Your task to perform on an android device: View the shopping cart on newegg.com. Search for macbook on newegg.com, select the first entry, and add it to the cart. Image 0: 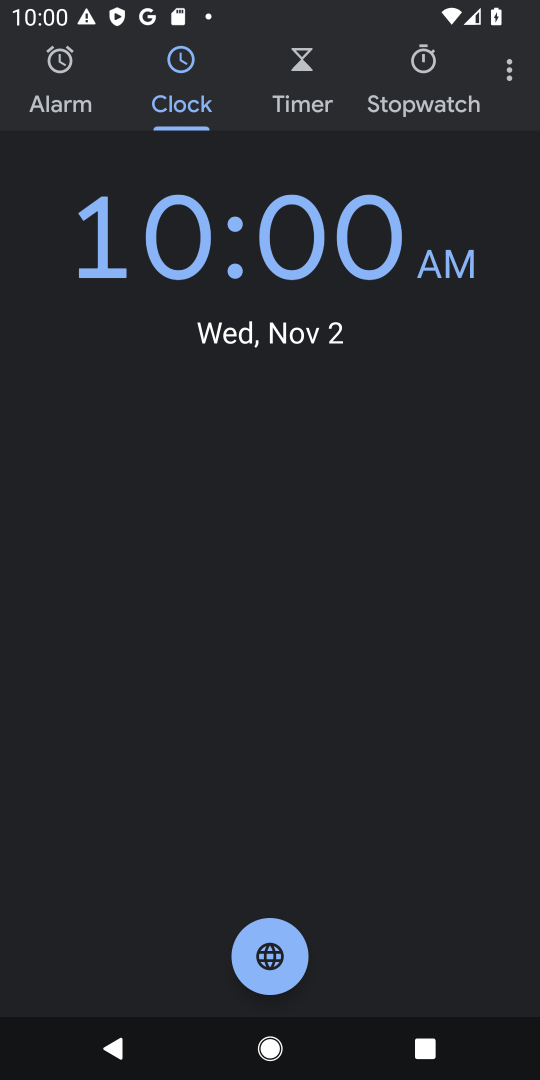
Step 0: press home button
Your task to perform on an android device: View the shopping cart on newegg.com. Search for macbook on newegg.com, select the first entry, and add it to the cart. Image 1: 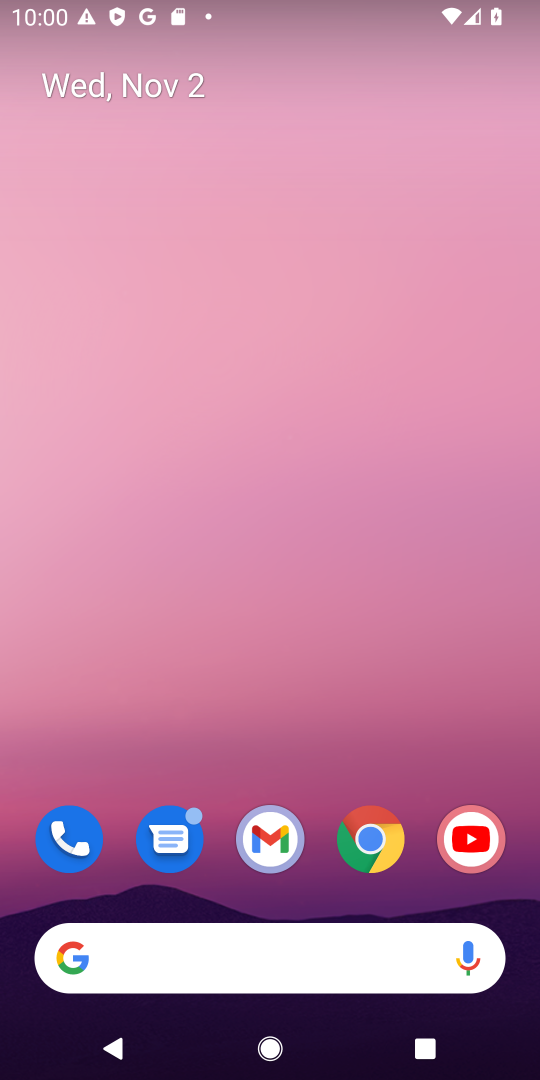
Step 1: drag from (296, 904) to (299, 326)
Your task to perform on an android device: View the shopping cart on newegg.com. Search for macbook on newegg.com, select the first entry, and add it to the cart. Image 2: 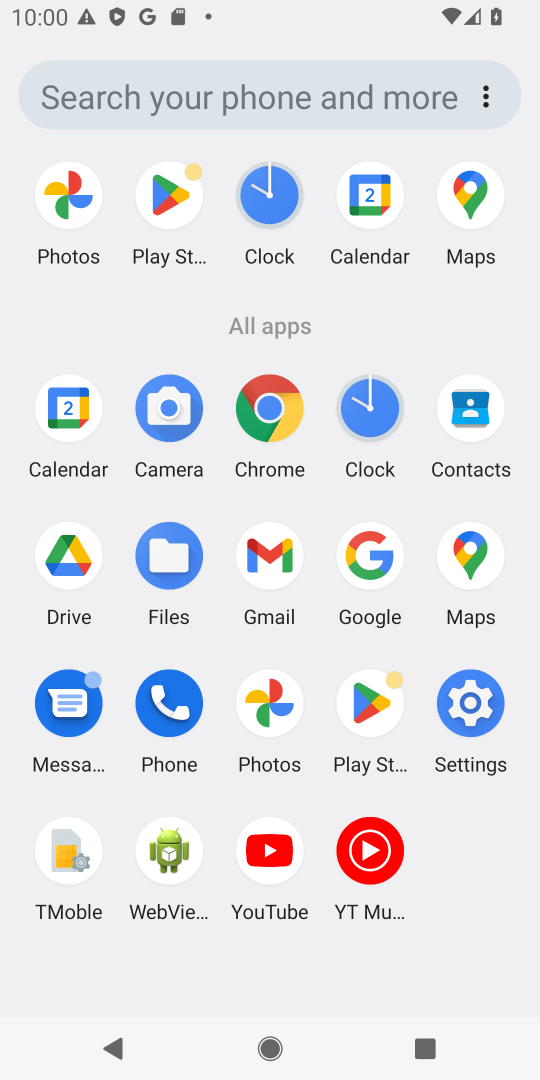
Step 2: click (363, 565)
Your task to perform on an android device: View the shopping cart on newegg.com. Search for macbook on newegg.com, select the first entry, and add it to the cart. Image 3: 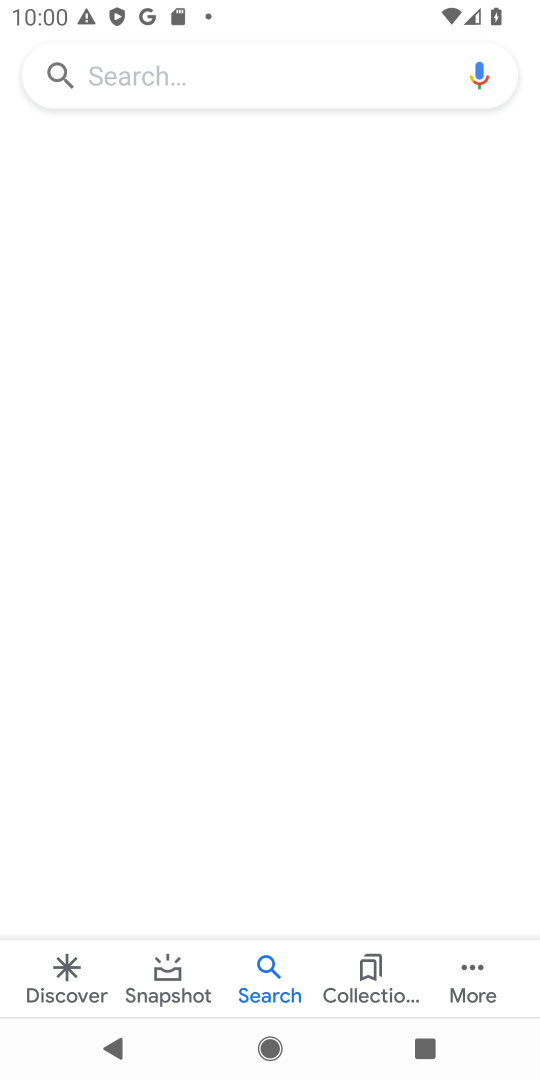
Step 3: click (260, 75)
Your task to perform on an android device: View the shopping cart on newegg.com. Search for macbook on newegg.com, select the first entry, and add it to the cart. Image 4: 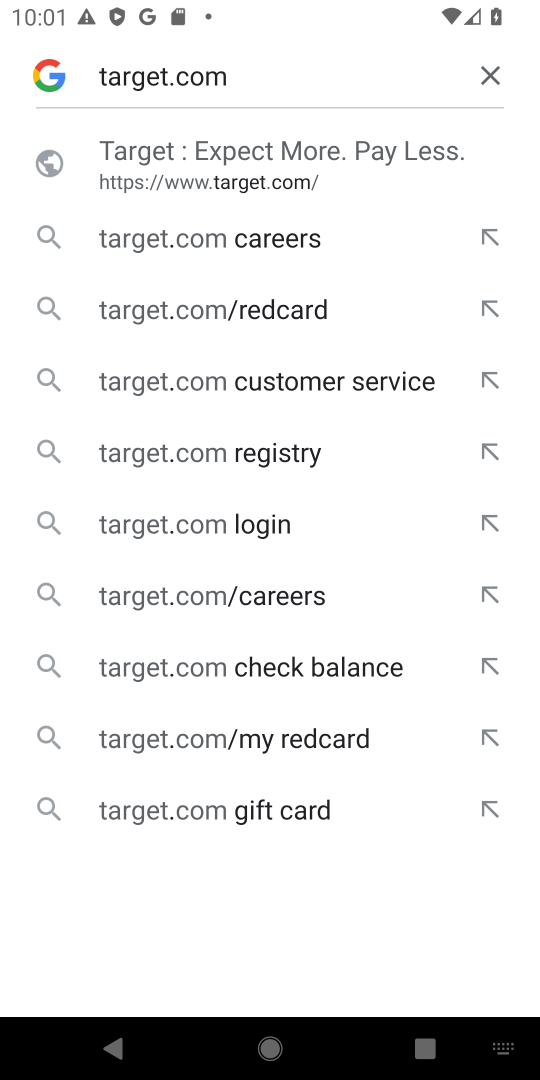
Step 4: click (275, 169)
Your task to perform on an android device: View the shopping cart on newegg.com. Search for macbook on newegg.com, select the first entry, and add it to the cart. Image 5: 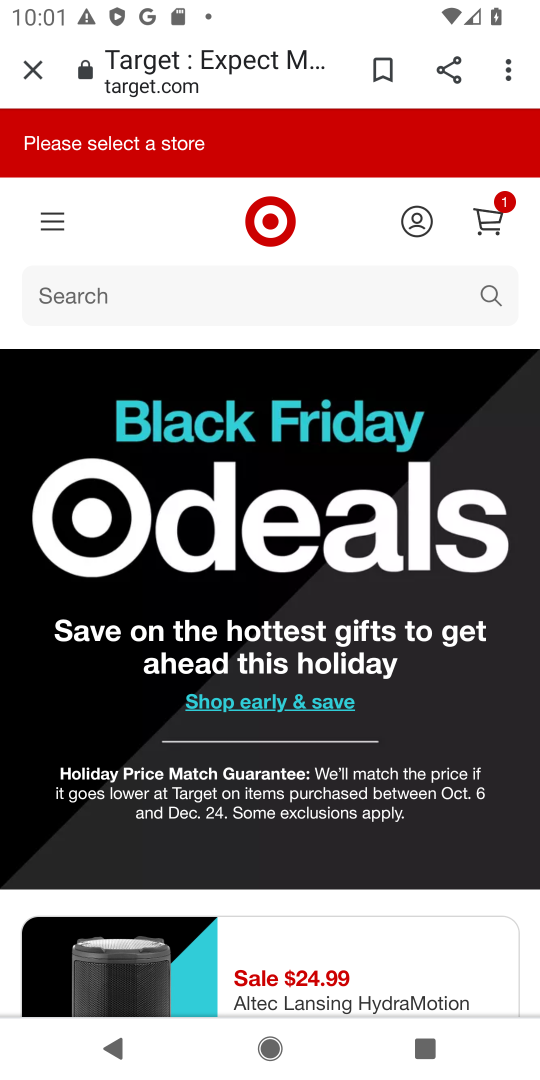
Step 5: click (339, 297)
Your task to perform on an android device: View the shopping cart on newegg.com. Search for macbook on newegg.com, select the first entry, and add it to the cart. Image 6: 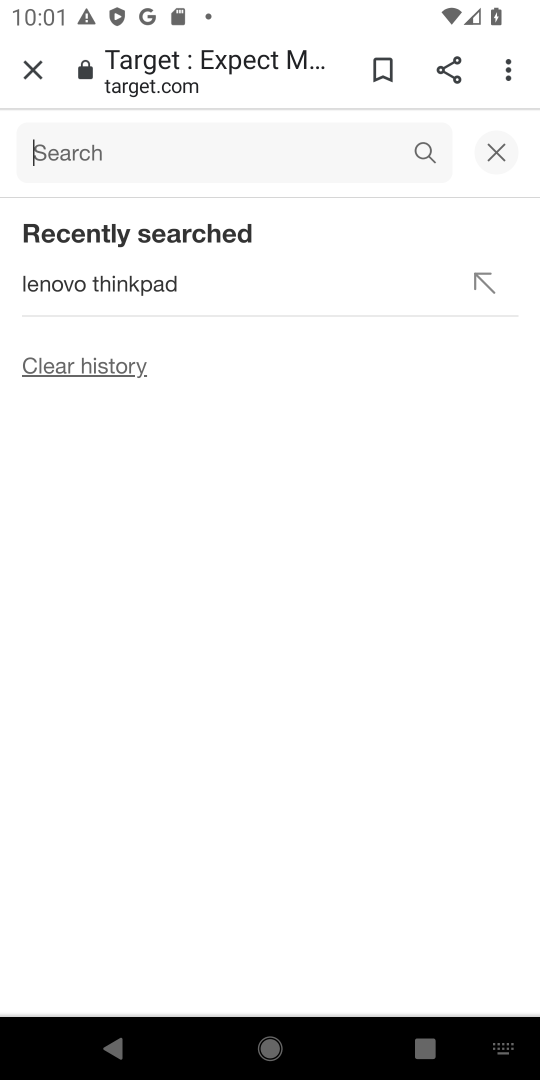
Step 6: type "macbook"
Your task to perform on an android device: View the shopping cart on newegg.com. Search for macbook on newegg.com, select the first entry, and add it to the cart. Image 7: 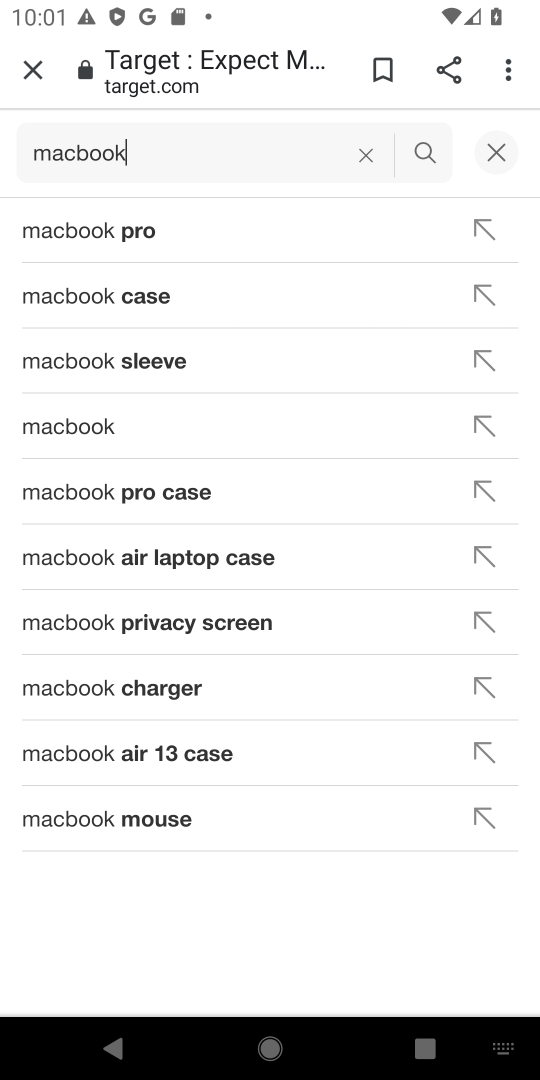
Step 7: click (316, 427)
Your task to perform on an android device: View the shopping cart on newegg.com. Search for macbook on newegg.com, select the first entry, and add it to the cart. Image 8: 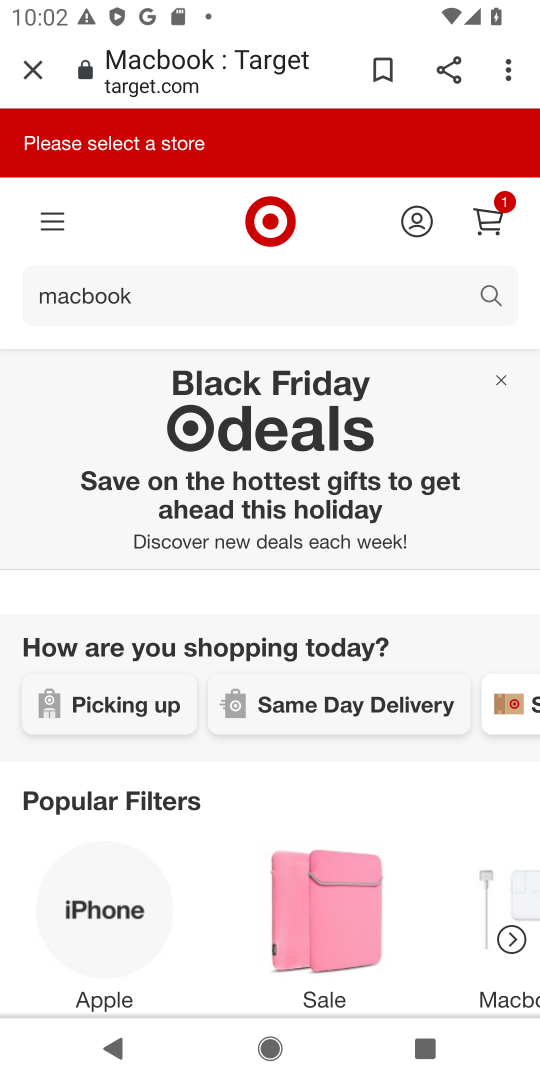
Step 8: task complete